Your task to perform on an android device: set the stopwatch Image 0: 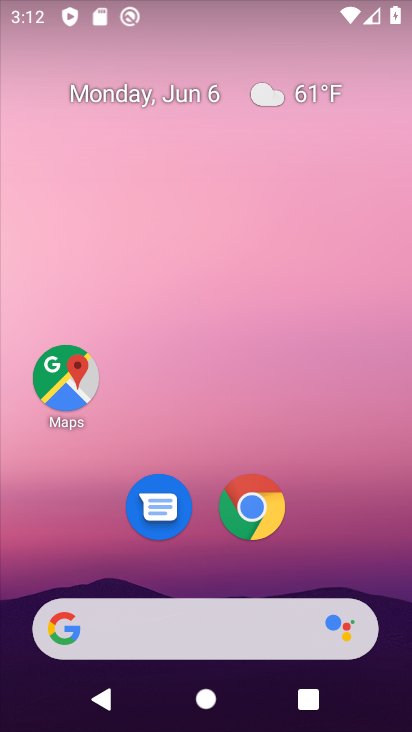
Step 0: drag from (207, 574) to (214, 202)
Your task to perform on an android device: set the stopwatch Image 1: 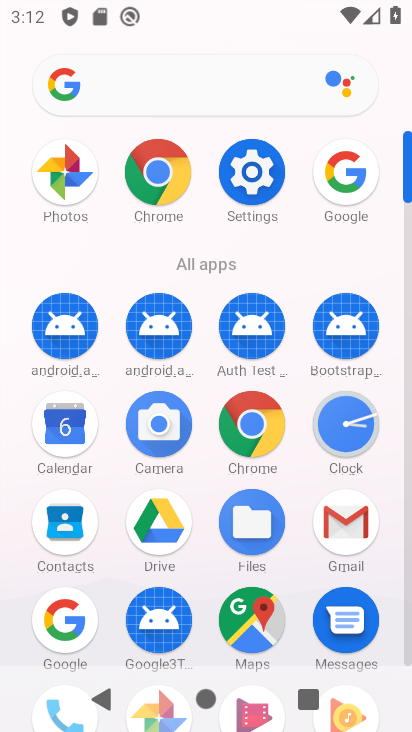
Step 1: click (332, 430)
Your task to perform on an android device: set the stopwatch Image 2: 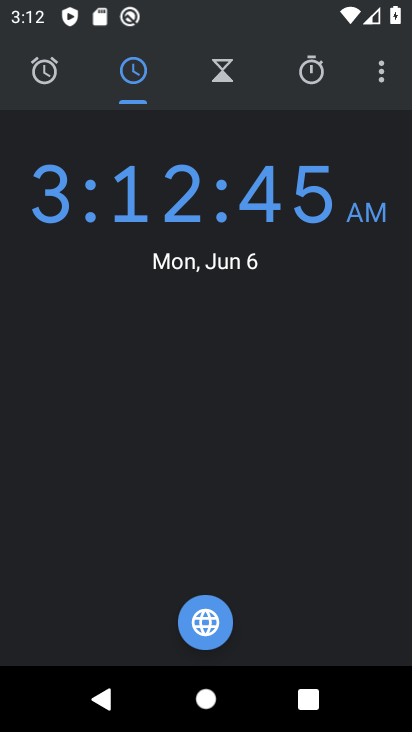
Step 2: click (314, 67)
Your task to perform on an android device: set the stopwatch Image 3: 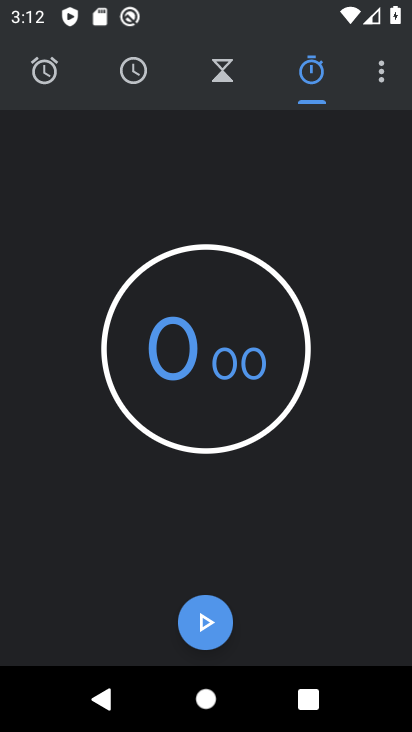
Step 3: click (217, 615)
Your task to perform on an android device: set the stopwatch Image 4: 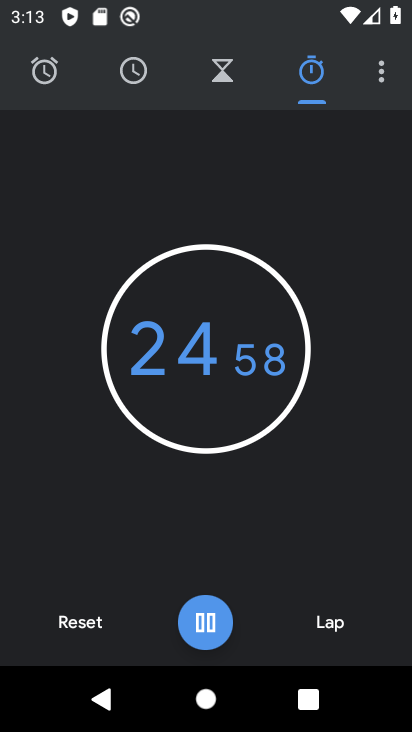
Step 4: task complete